Your task to perform on an android device: turn on the 12-hour format for clock Image 0: 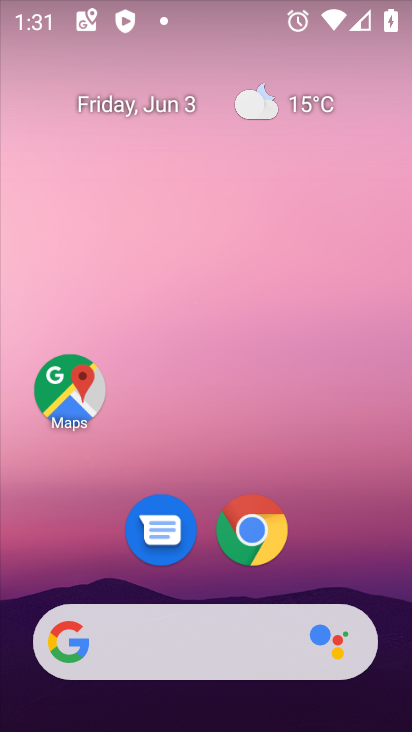
Step 0: drag from (354, 581) to (312, 80)
Your task to perform on an android device: turn on the 12-hour format for clock Image 1: 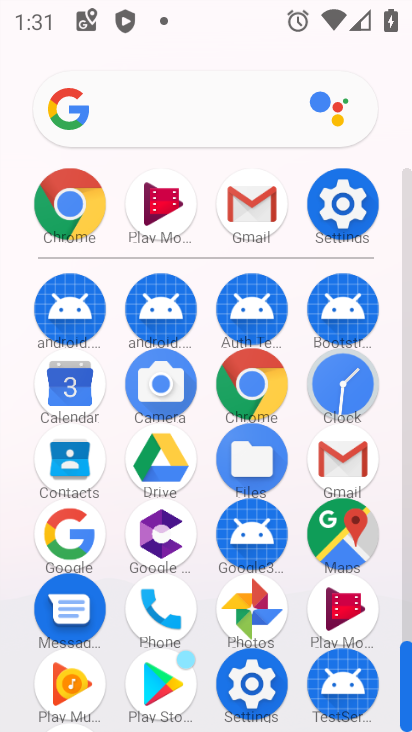
Step 1: click (341, 392)
Your task to perform on an android device: turn on the 12-hour format for clock Image 2: 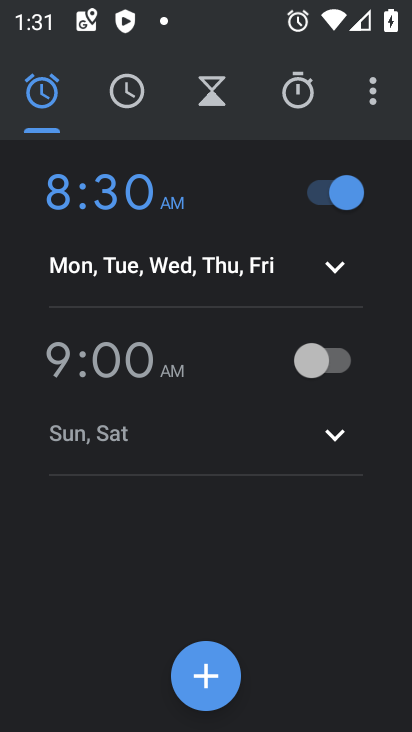
Step 2: click (370, 101)
Your task to perform on an android device: turn on the 12-hour format for clock Image 3: 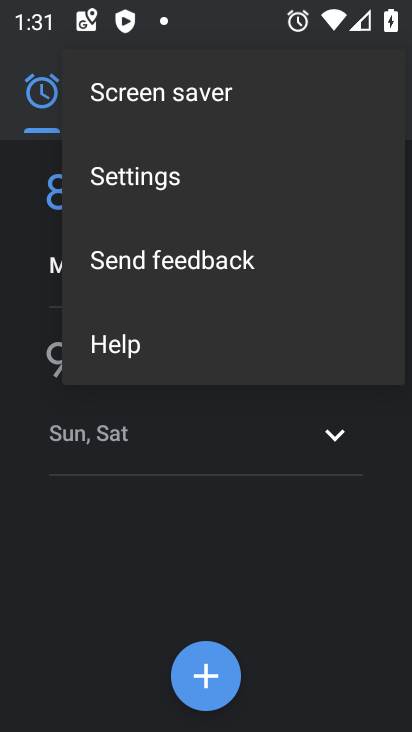
Step 3: click (136, 190)
Your task to perform on an android device: turn on the 12-hour format for clock Image 4: 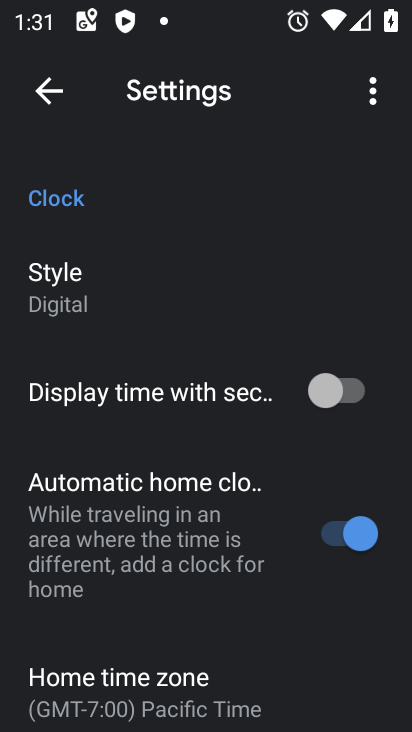
Step 4: drag from (285, 678) to (287, 218)
Your task to perform on an android device: turn on the 12-hour format for clock Image 5: 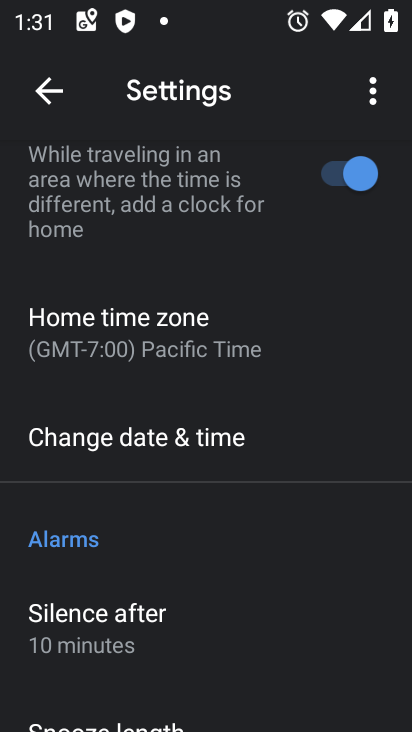
Step 5: click (212, 433)
Your task to perform on an android device: turn on the 12-hour format for clock Image 6: 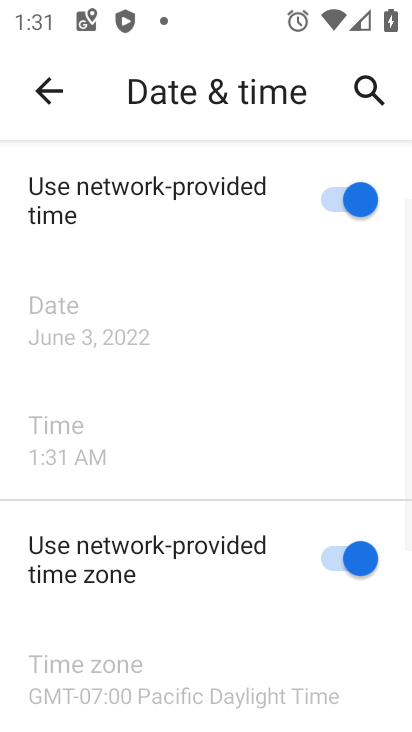
Step 6: task complete